Your task to perform on an android device: Go to Reddit.com Image 0: 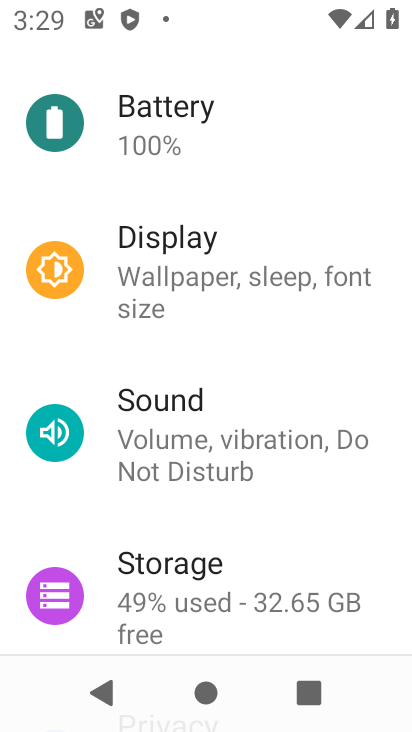
Step 0: press home button
Your task to perform on an android device: Go to Reddit.com Image 1: 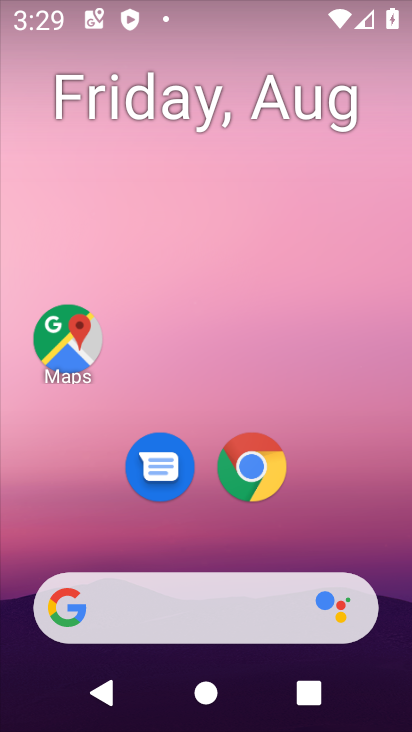
Step 1: drag from (244, 530) to (234, 32)
Your task to perform on an android device: Go to Reddit.com Image 2: 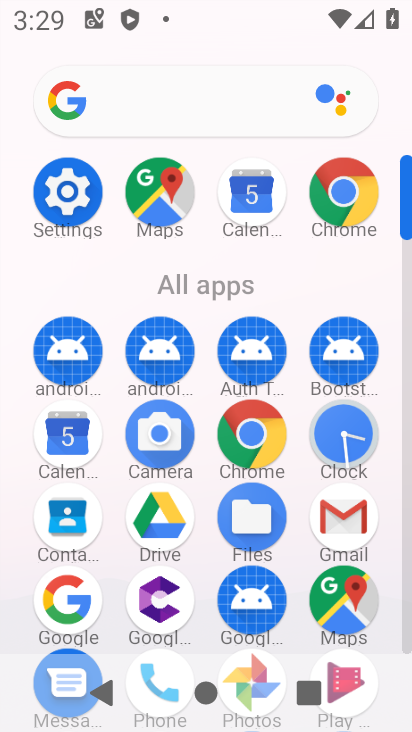
Step 2: drag from (63, 195) to (401, 551)
Your task to perform on an android device: Go to Reddit.com Image 3: 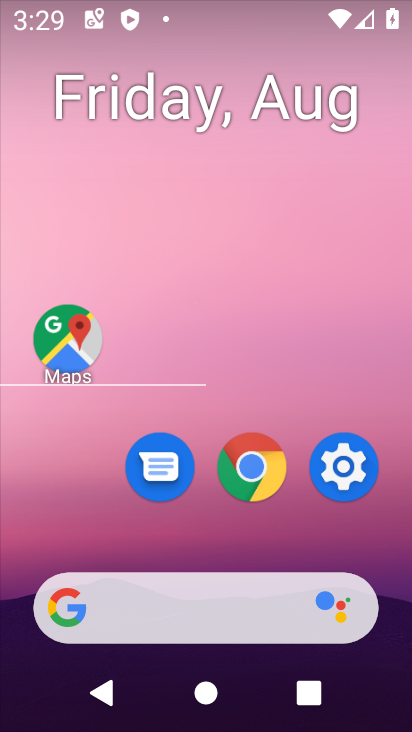
Step 3: drag from (329, 529) to (301, 10)
Your task to perform on an android device: Go to Reddit.com Image 4: 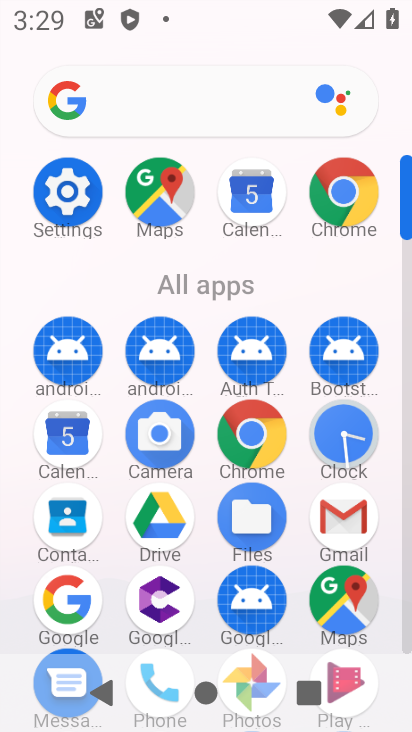
Step 4: click (343, 193)
Your task to perform on an android device: Go to Reddit.com Image 5: 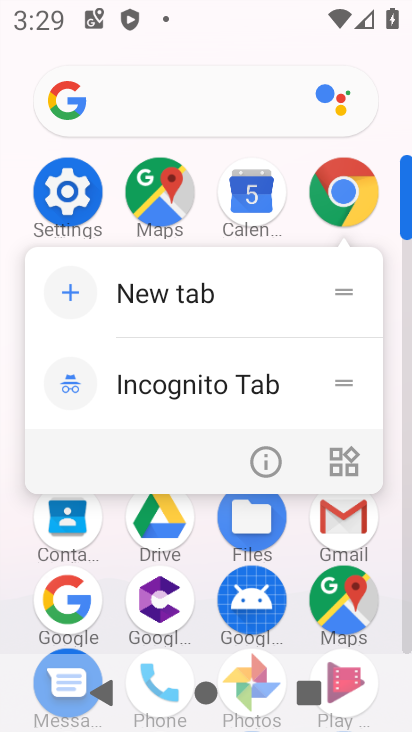
Step 5: click (347, 180)
Your task to perform on an android device: Go to Reddit.com Image 6: 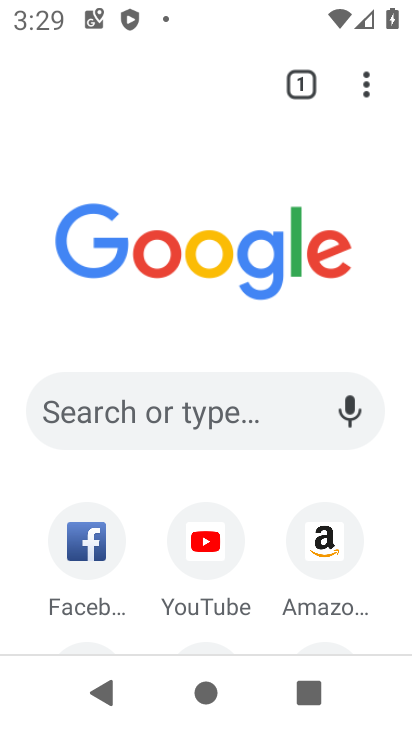
Step 6: click (235, 399)
Your task to perform on an android device: Go to Reddit.com Image 7: 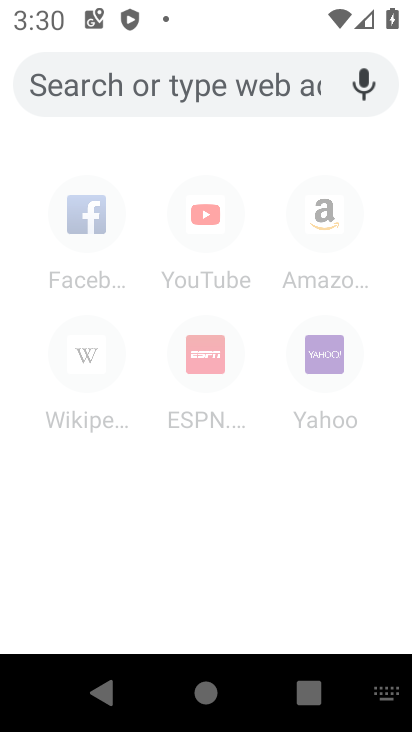
Step 7: type " Reddit.com"
Your task to perform on an android device: Go to Reddit.com Image 8: 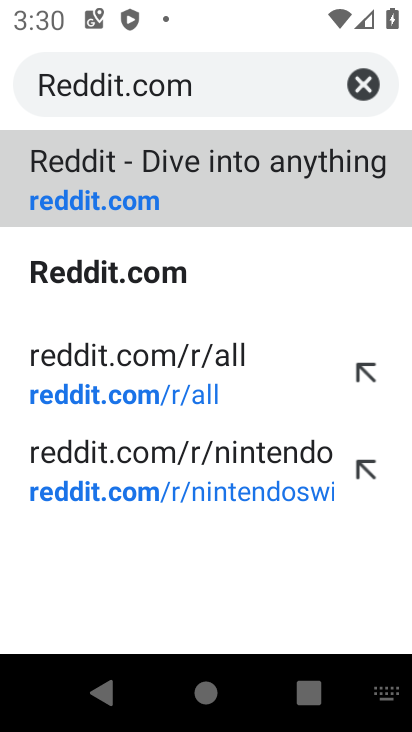
Step 8: click (87, 191)
Your task to perform on an android device: Go to Reddit.com Image 9: 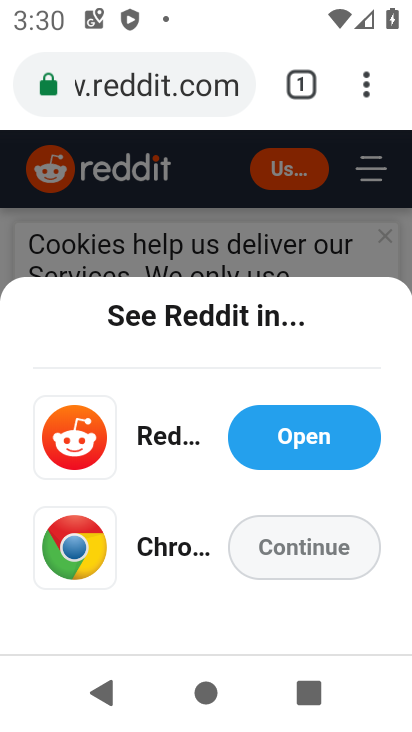
Step 9: click (288, 448)
Your task to perform on an android device: Go to Reddit.com Image 10: 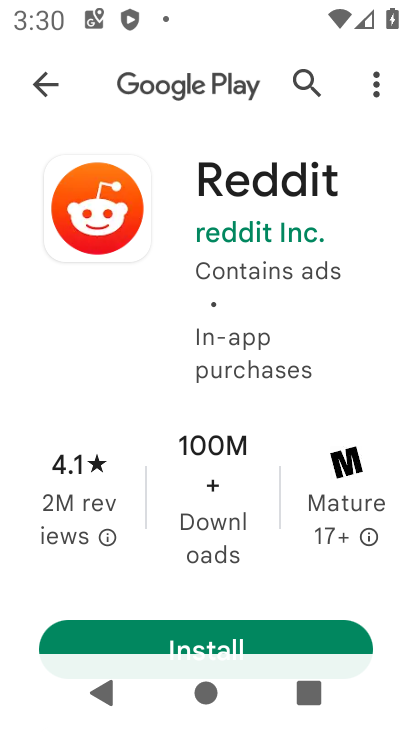
Step 10: task complete